Your task to perform on an android device: Go to calendar. Show me events next week Image 0: 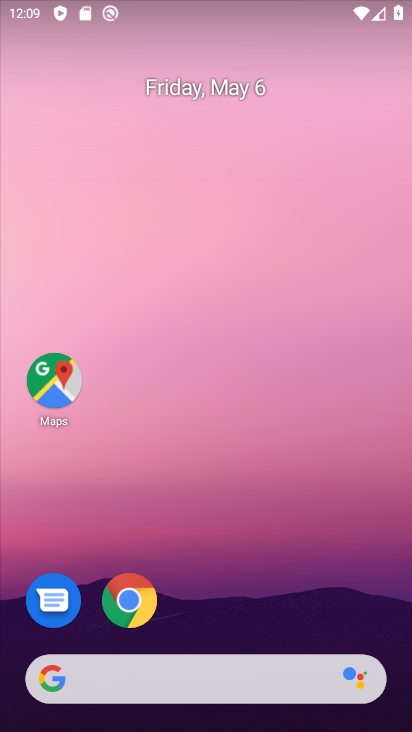
Step 0: drag from (321, 611) to (338, 73)
Your task to perform on an android device: Go to calendar. Show me events next week Image 1: 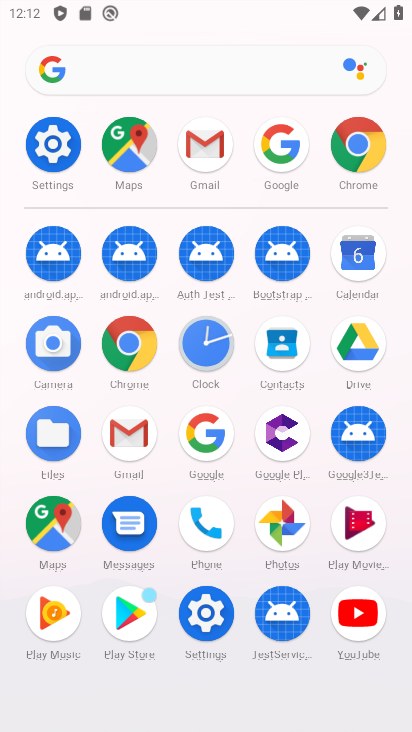
Step 1: click (363, 266)
Your task to perform on an android device: Go to calendar. Show me events next week Image 2: 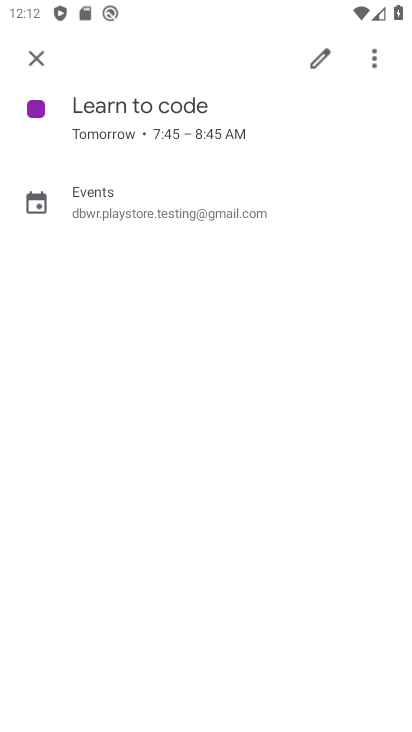
Step 2: task complete